Your task to perform on an android device: What is the recent news? Image 0: 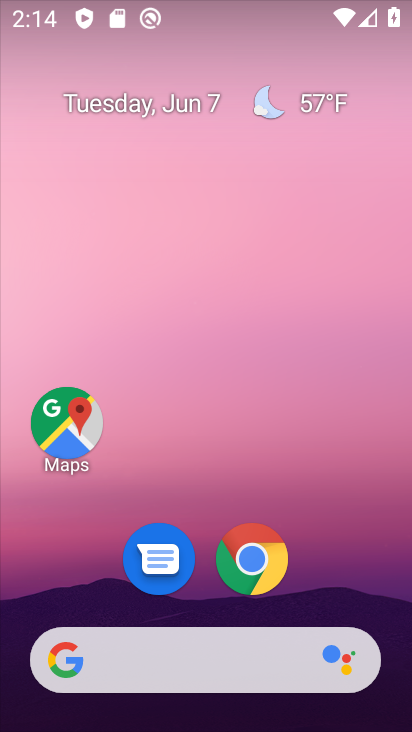
Step 0: drag from (373, 569) to (265, 31)
Your task to perform on an android device: What is the recent news? Image 1: 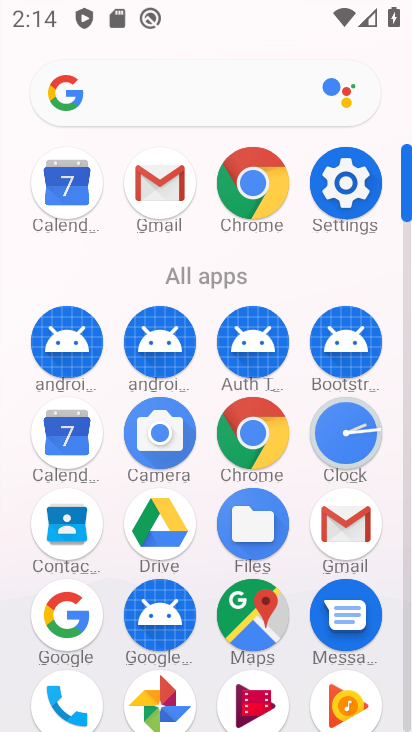
Step 1: drag from (8, 505) to (12, 181)
Your task to perform on an android device: What is the recent news? Image 2: 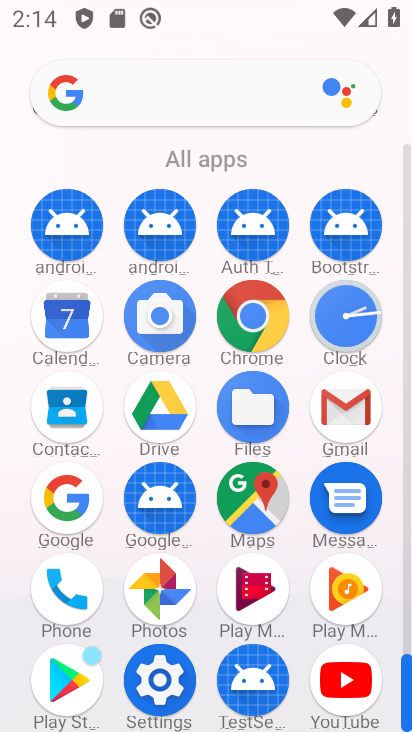
Step 2: drag from (24, 557) to (22, 174)
Your task to perform on an android device: What is the recent news? Image 3: 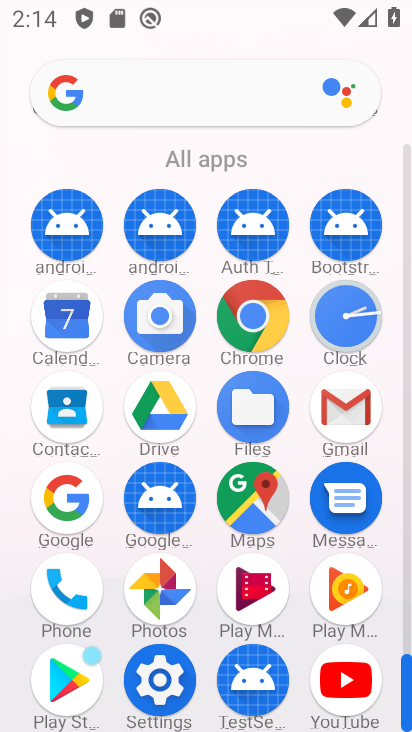
Step 3: click (261, 317)
Your task to perform on an android device: What is the recent news? Image 4: 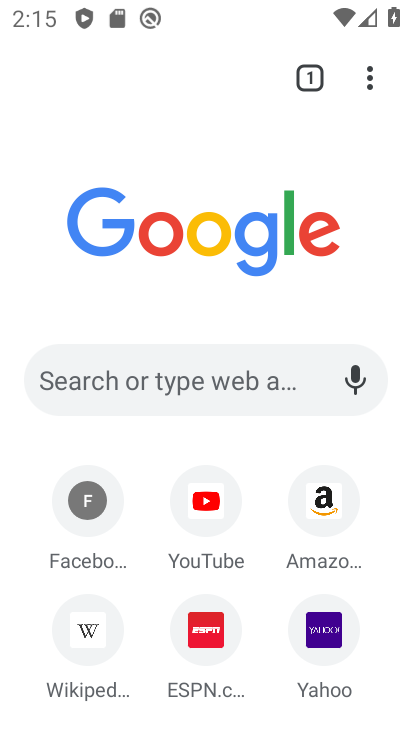
Step 4: click (91, 375)
Your task to perform on an android device: What is the recent news? Image 5: 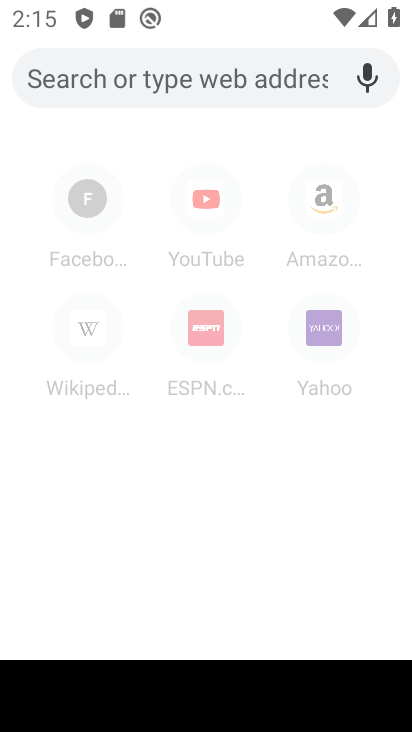
Step 5: type "What is the recent news?"
Your task to perform on an android device: What is the recent news? Image 6: 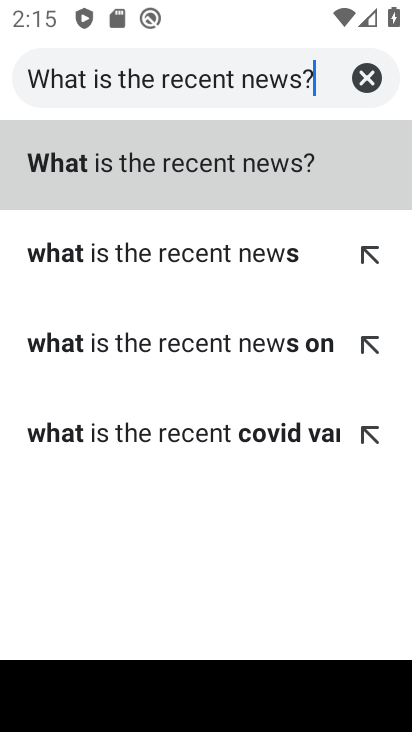
Step 6: type ""
Your task to perform on an android device: What is the recent news? Image 7: 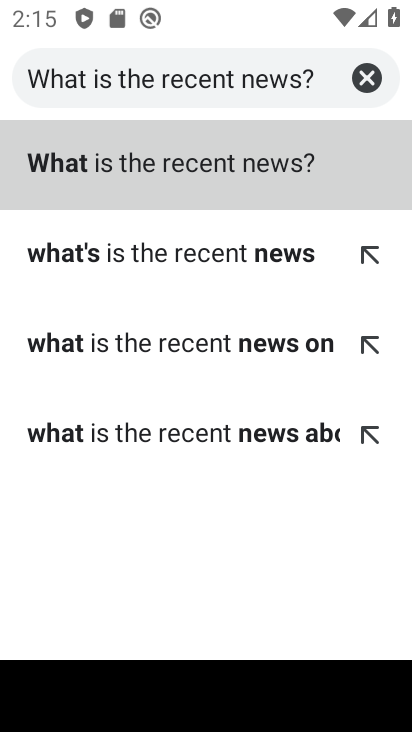
Step 7: click (175, 141)
Your task to perform on an android device: What is the recent news? Image 8: 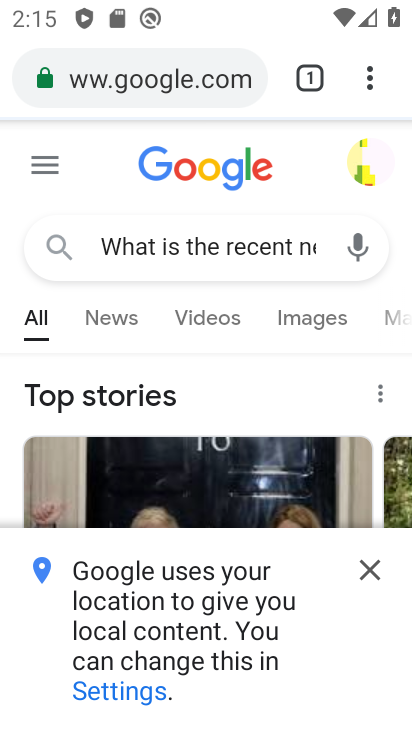
Step 8: click (380, 564)
Your task to perform on an android device: What is the recent news? Image 9: 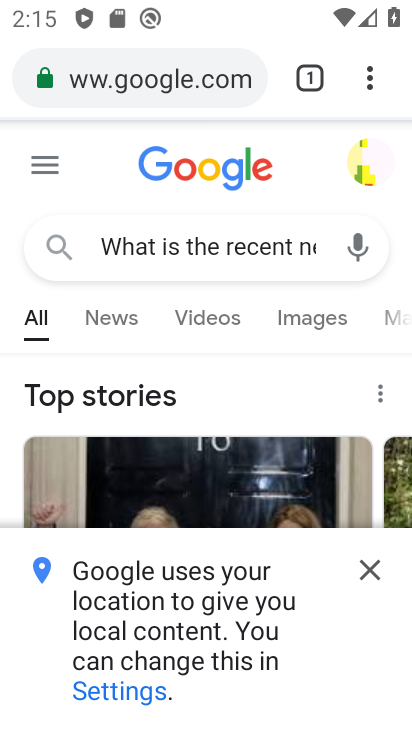
Step 9: click (373, 574)
Your task to perform on an android device: What is the recent news? Image 10: 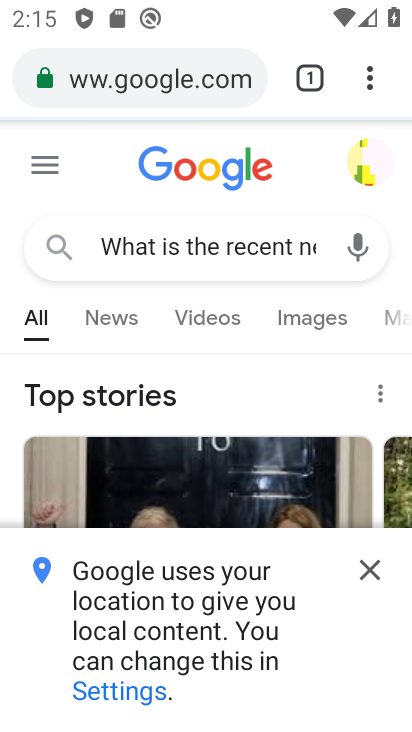
Step 10: click (369, 568)
Your task to perform on an android device: What is the recent news? Image 11: 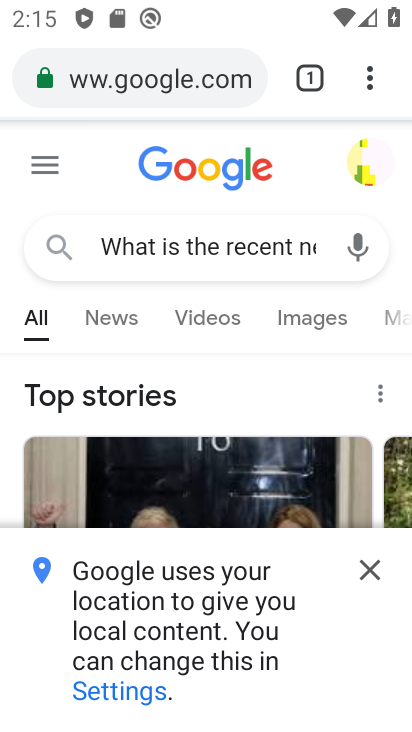
Step 11: click (369, 568)
Your task to perform on an android device: What is the recent news? Image 12: 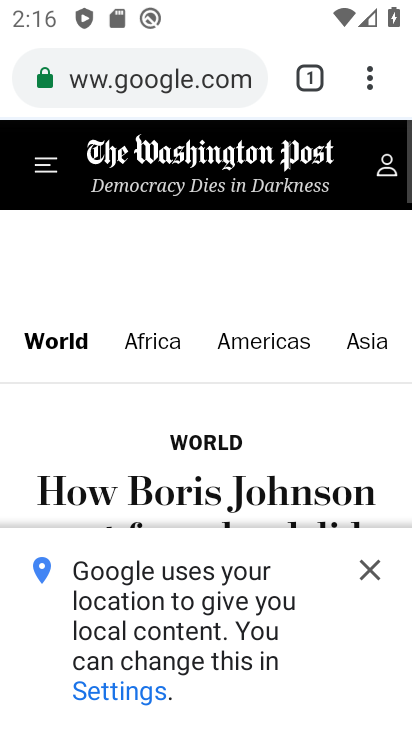
Step 12: click (369, 568)
Your task to perform on an android device: What is the recent news? Image 13: 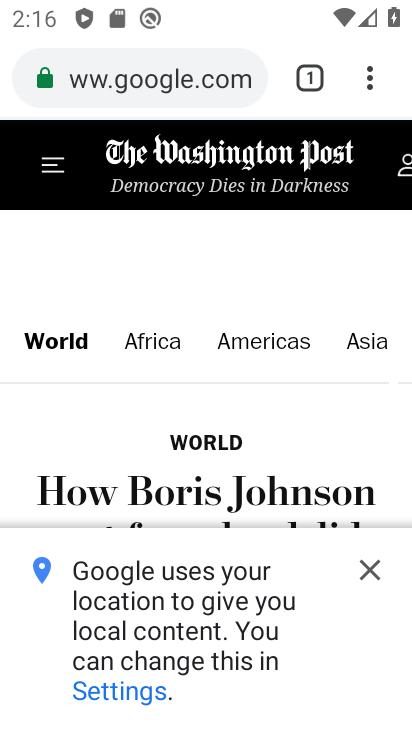
Step 13: task complete